Your task to perform on an android device: turn off sleep mode Image 0: 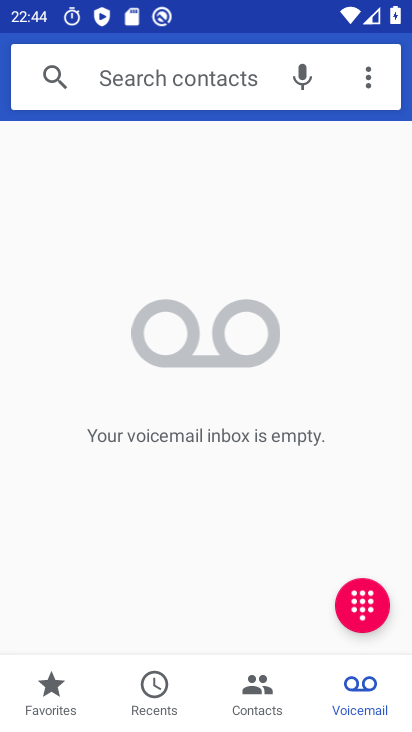
Step 0: press home button
Your task to perform on an android device: turn off sleep mode Image 1: 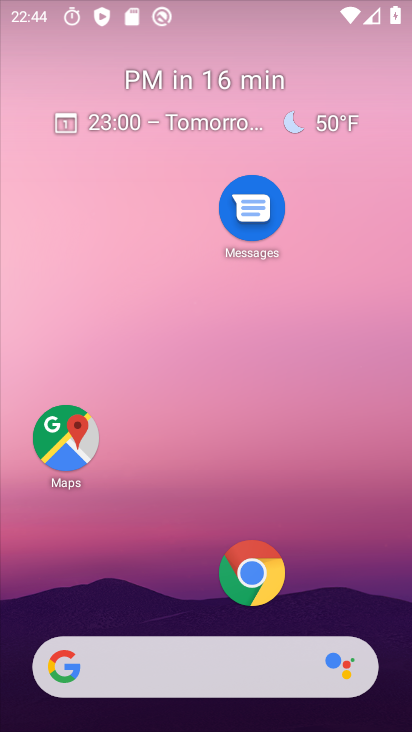
Step 1: drag from (182, 601) to (190, 114)
Your task to perform on an android device: turn off sleep mode Image 2: 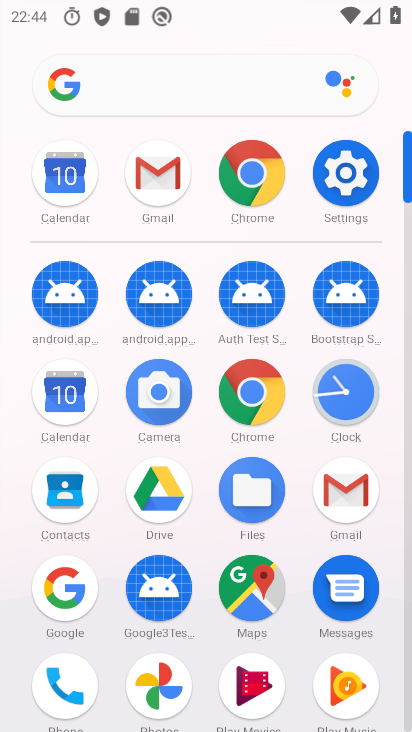
Step 2: click (341, 185)
Your task to perform on an android device: turn off sleep mode Image 3: 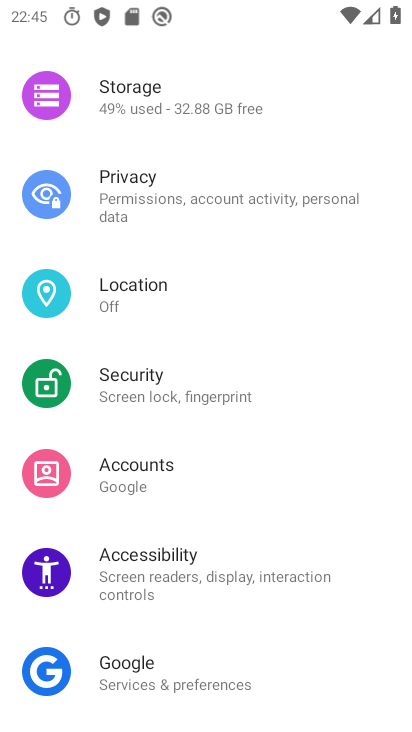
Step 3: drag from (209, 166) to (264, 697)
Your task to perform on an android device: turn off sleep mode Image 4: 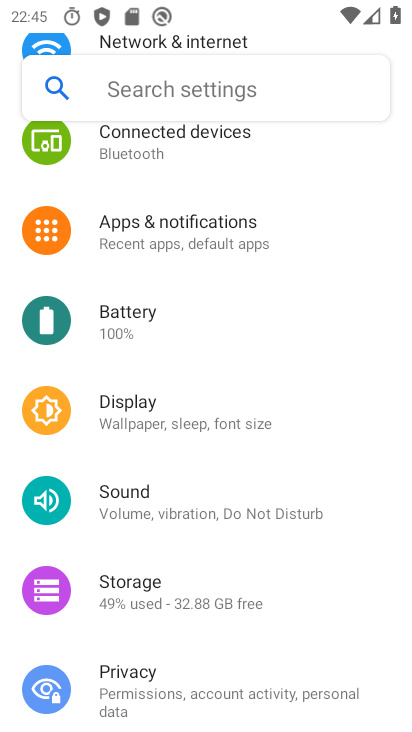
Step 4: click (184, 410)
Your task to perform on an android device: turn off sleep mode Image 5: 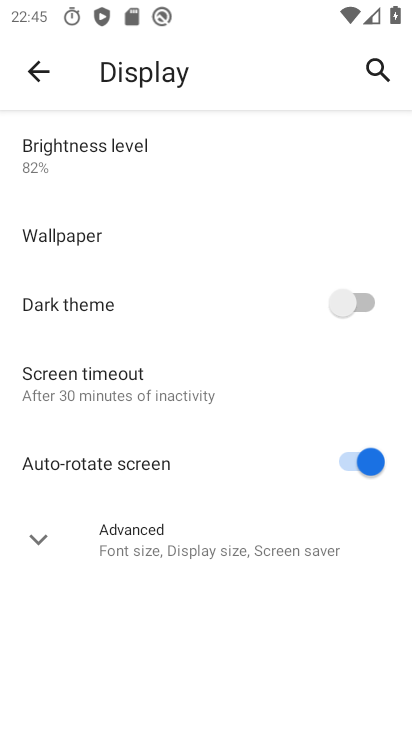
Step 5: click (178, 366)
Your task to perform on an android device: turn off sleep mode Image 6: 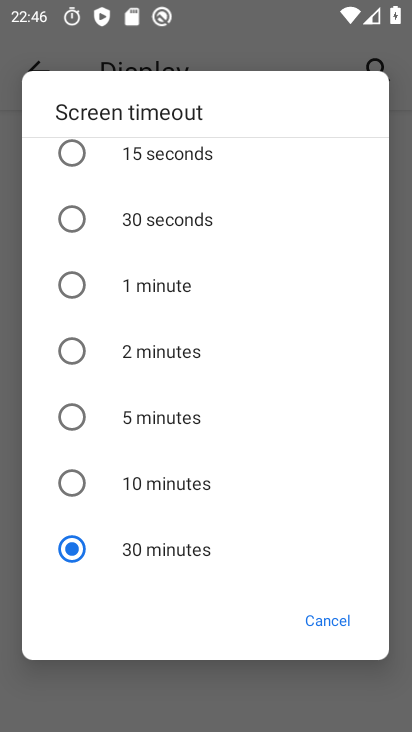
Step 6: task complete